Your task to perform on an android device: See recent photos Image 0: 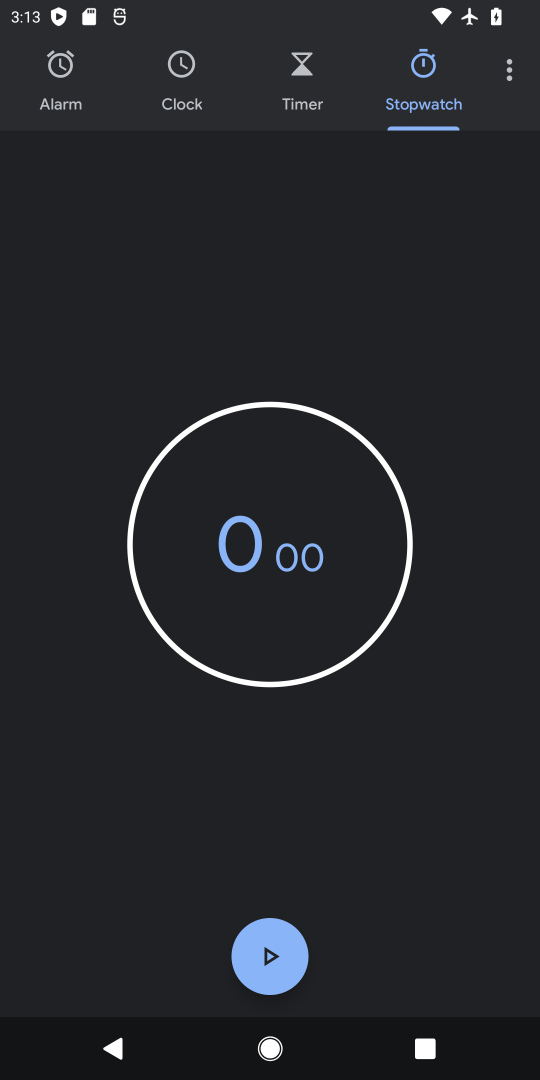
Step 0: press home button
Your task to perform on an android device: See recent photos Image 1: 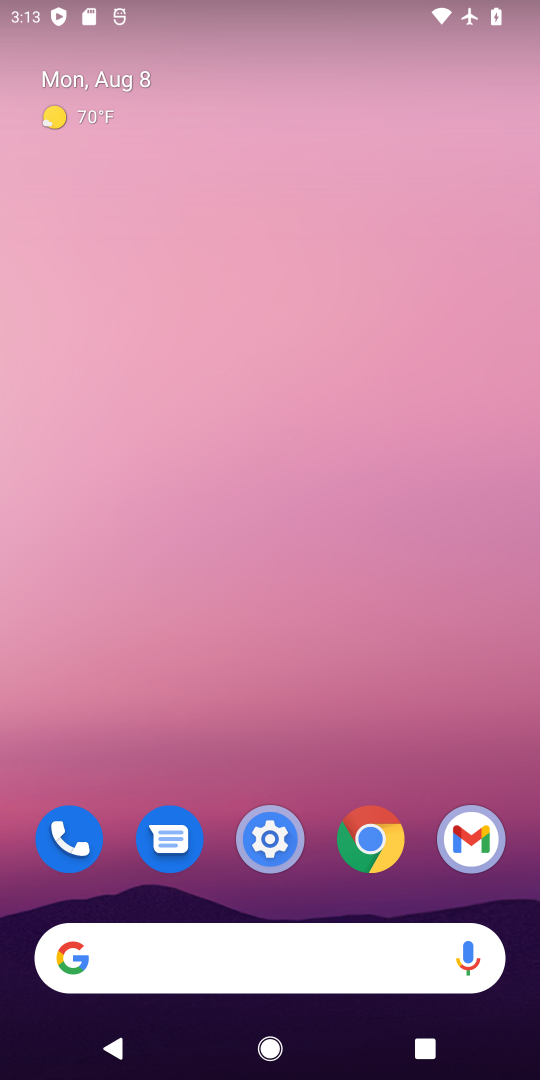
Step 1: drag from (414, 759) to (435, 288)
Your task to perform on an android device: See recent photos Image 2: 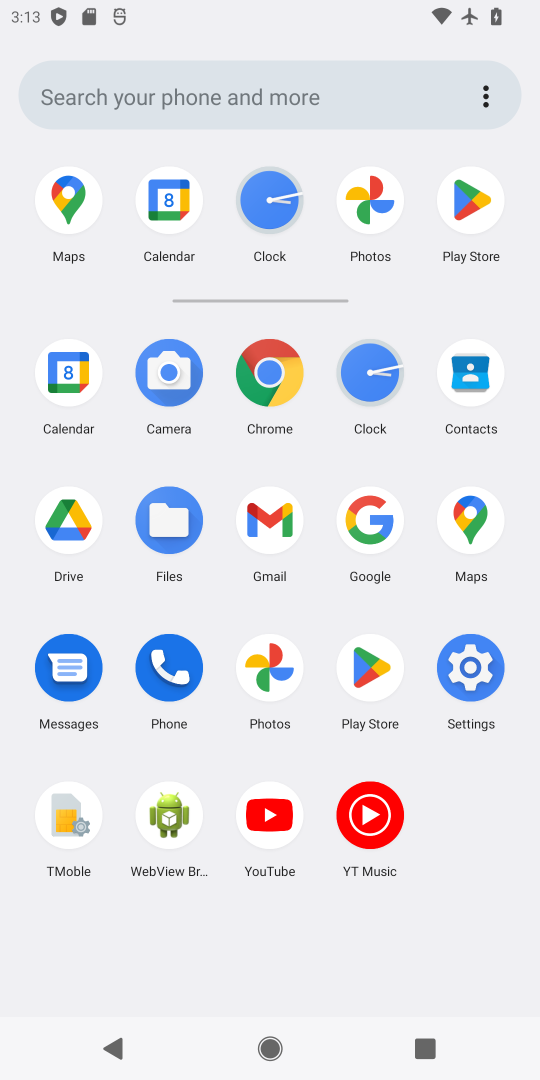
Step 2: click (257, 665)
Your task to perform on an android device: See recent photos Image 3: 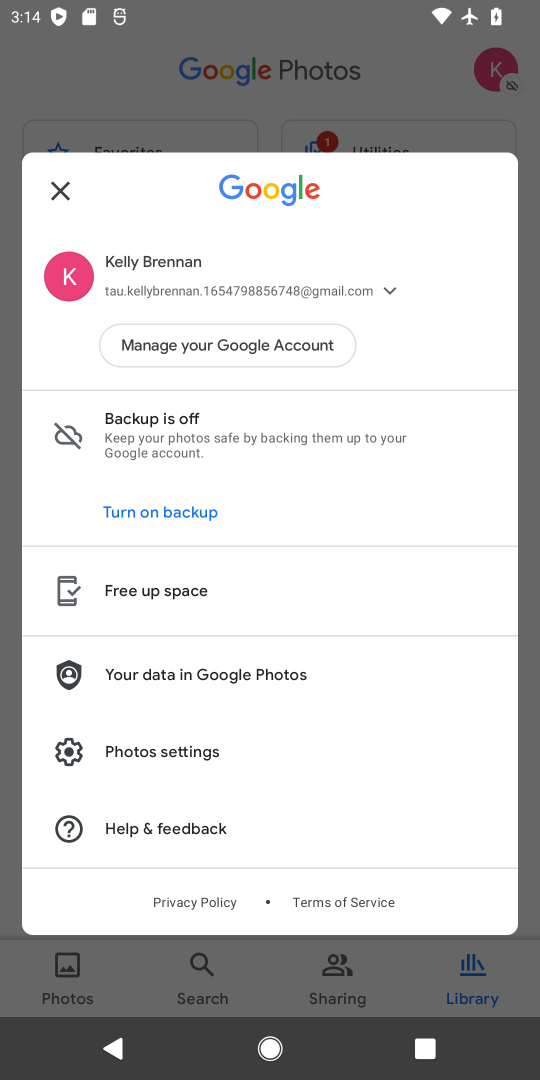
Step 3: press back button
Your task to perform on an android device: See recent photos Image 4: 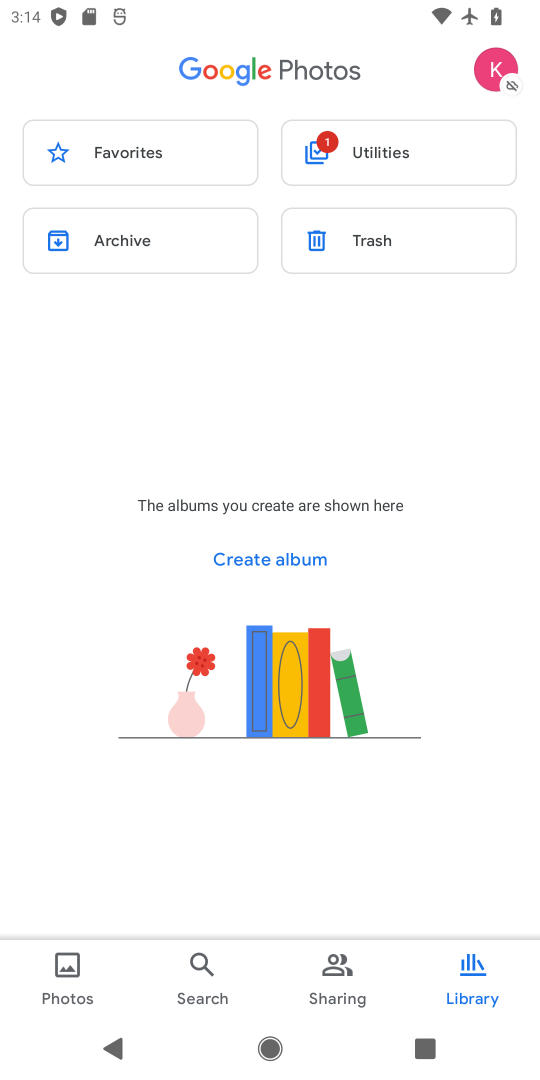
Step 4: click (65, 964)
Your task to perform on an android device: See recent photos Image 5: 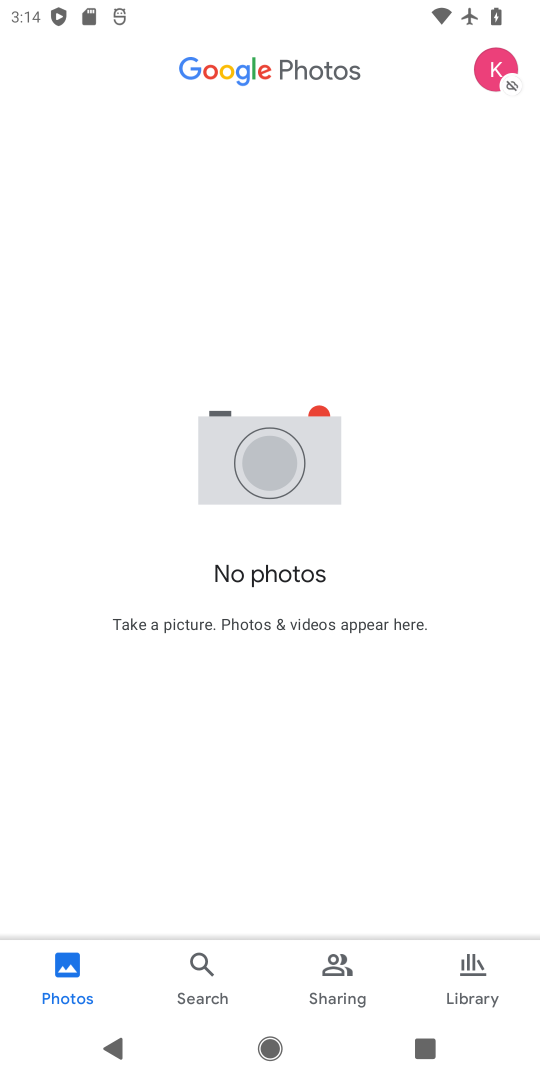
Step 5: task complete